Your task to perform on an android device: Open the Play Movies app and select the watchlist tab. Image 0: 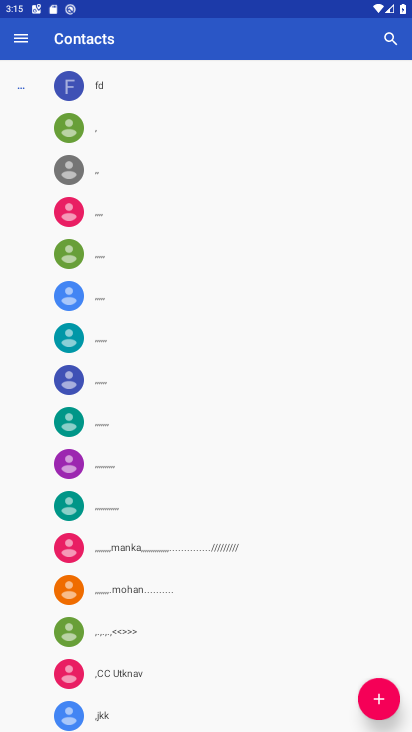
Step 0: press home button
Your task to perform on an android device: Open the Play Movies app and select the watchlist tab. Image 1: 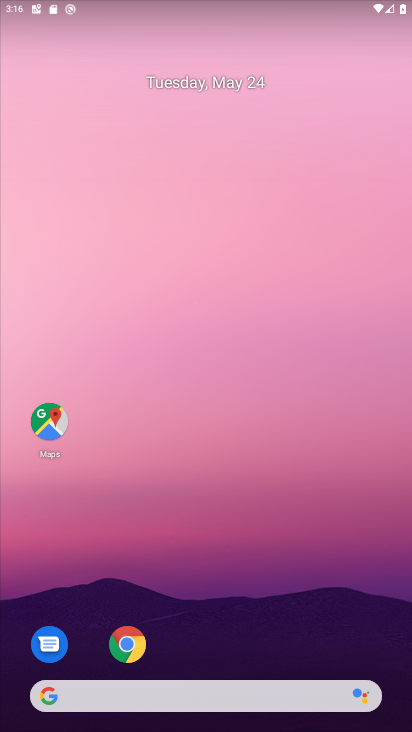
Step 1: drag from (312, 622) to (154, 138)
Your task to perform on an android device: Open the Play Movies app and select the watchlist tab. Image 2: 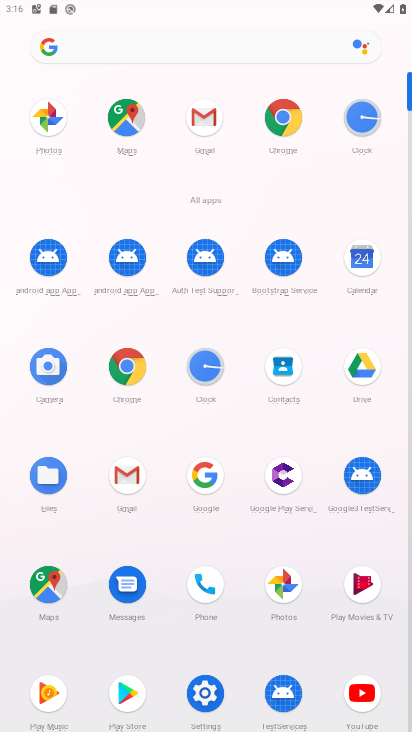
Step 2: click (376, 614)
Your task to perform on an android device: Open the Play Movies app and select the watchlist tab. Image 3: 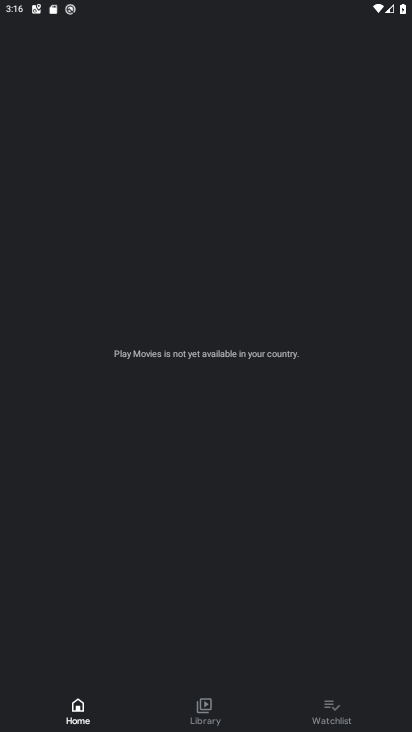
Step 3: click (369, 703)
Your task to perform on an android device: Open the Play Movies app and select the watchlist tab. Image 4: 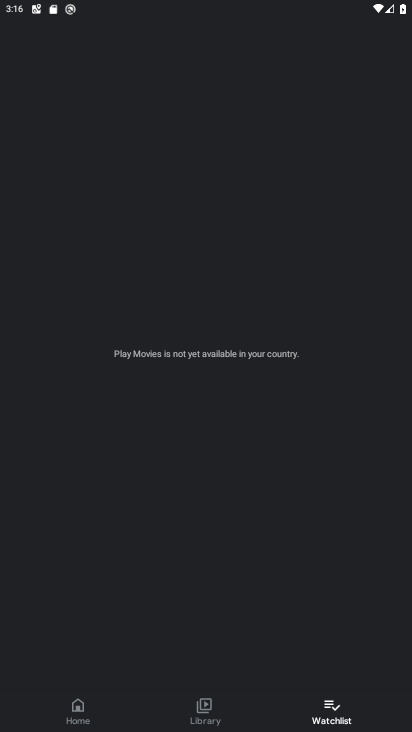
Step 4: task complete